Your task to perform on an android device: turn smart compose on in the gmail app Image 0: 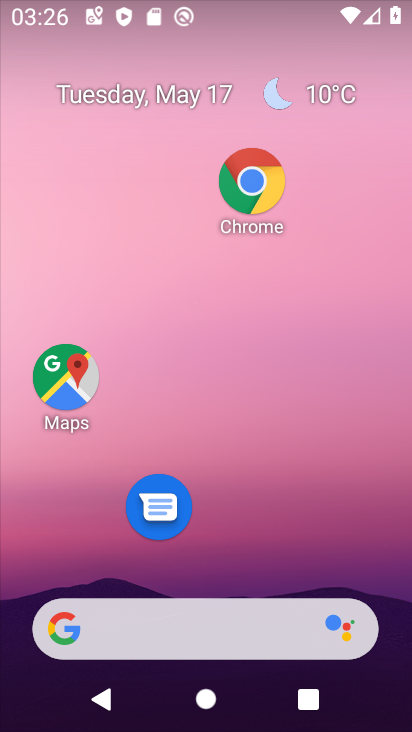
Step 0: drag from (216, 585) to (198, 138)
Your task to perform on an android device: turn smart compose on in the gmail app Image 1: 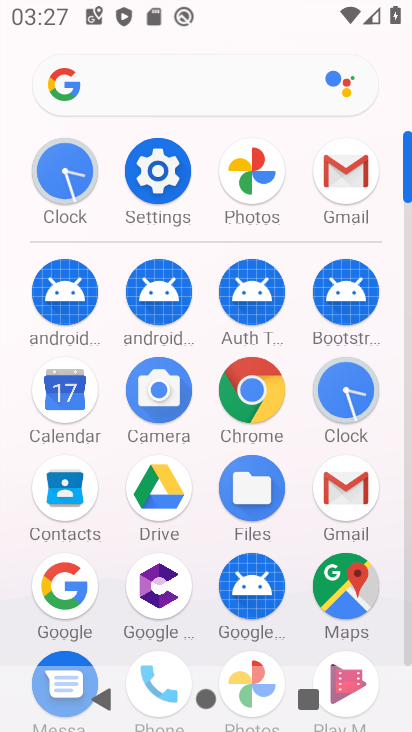
Step 1: click (345, 168)
Your task to perform on an android device: turn smart compose on in the gmail app Image 2: 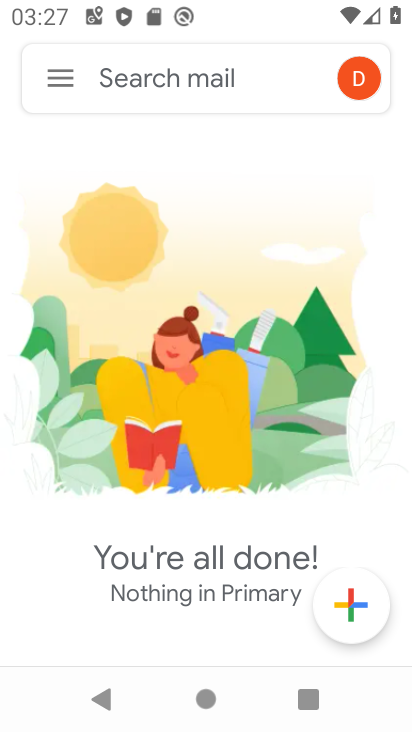
Step 2: click (49, 67)
Your task to perform on an android device: turn smart compose on in the gmail app Image 3: 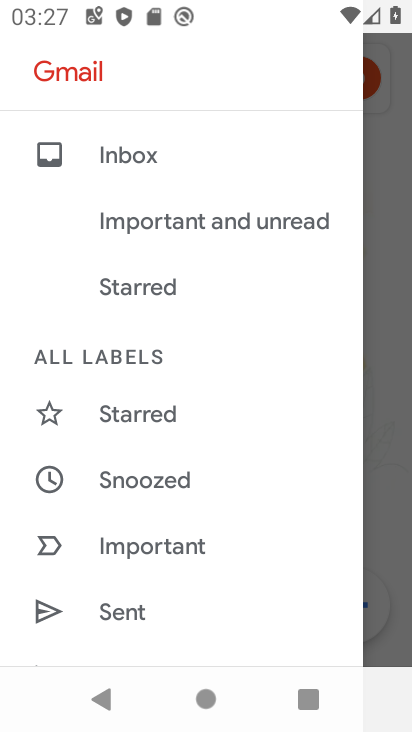
Step 3: drag from (157, 629) to (247, 178)
Your task to perform on an android device: turn smart compose on in the gmail app Image 4: 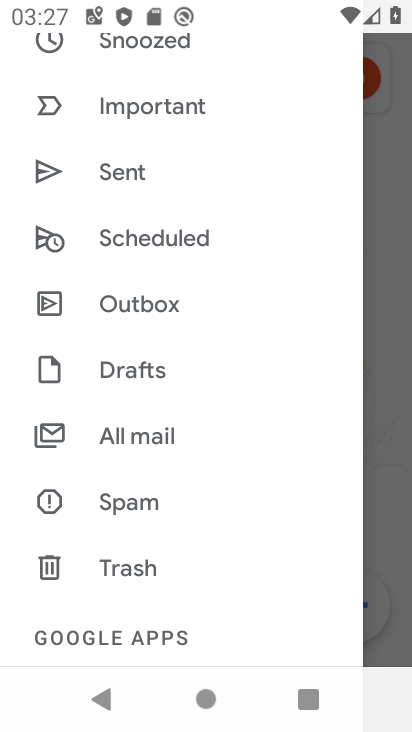
Step 4: drag from (155, 543) to (175, 104)
Your task to perform on an android device: turn smart compose on in the gmail app Image 5: 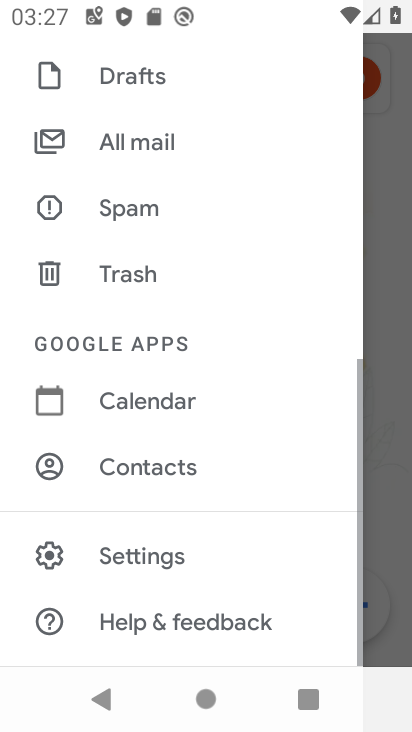
Step 5: click (168, 553)
Your task to perform on an android device: turn smart compose on in the gmail app Image 6: 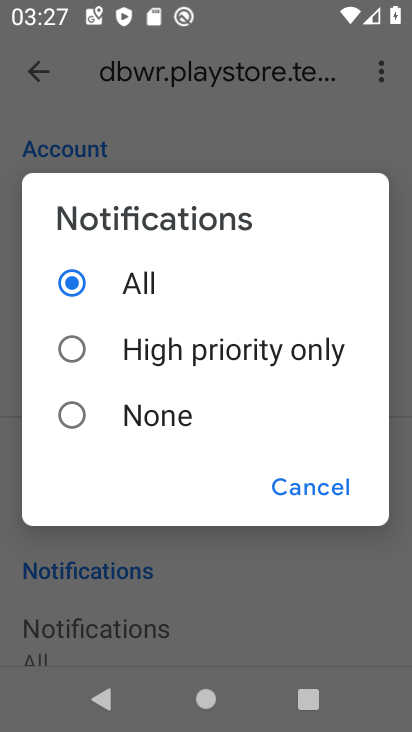
Step 6: click (307, 482)
Your task to perform on an android device: turn smart compose on in the gmail app Image 7: 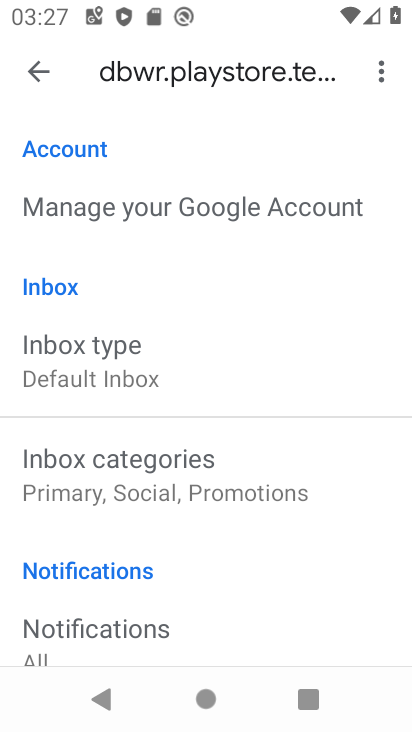
Step 7: task complete